Your task to perform on an android device: toggle data saver in the chrome app Image 0: 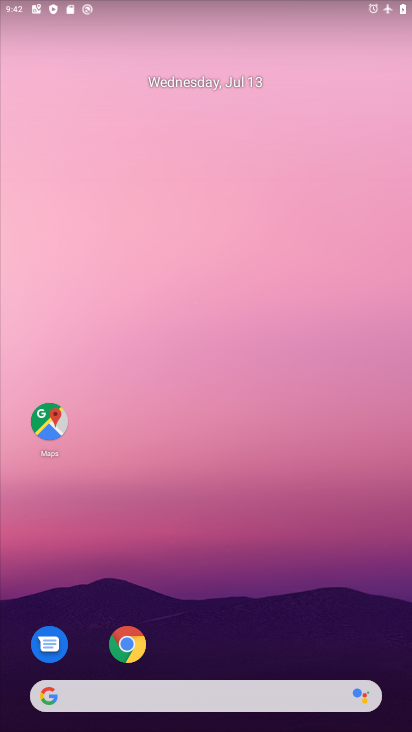
Step 0: drag from (227, 724) to (227, 121)
Your task to perform on an android device: toggle data saver in the chrome app Image 1: 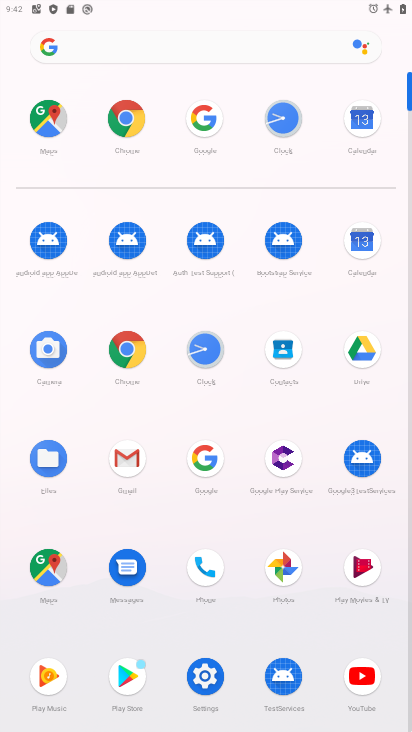
Step 1: click (128, 352)
Your task to perform on an android device: toggle data saver in the chrome app Image 2: 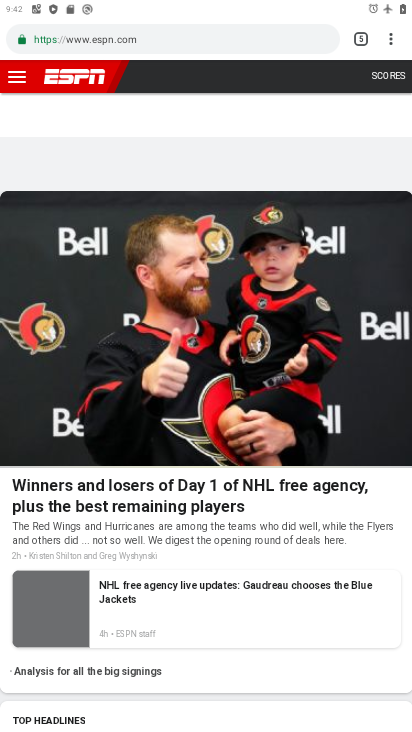
Step 2: click (390, 44)
Your task to perform on an android device: toggle data saver in the chrome app Image 3: 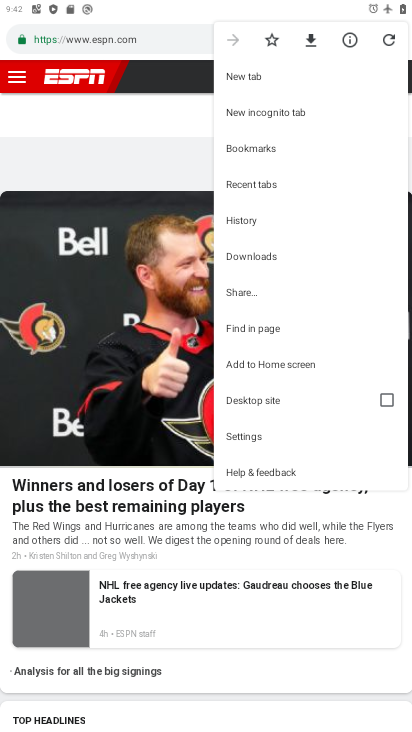
Step 3: click (250, 433)
Your task to perform on an android device: toggle data saver in the chrome app Image 4: 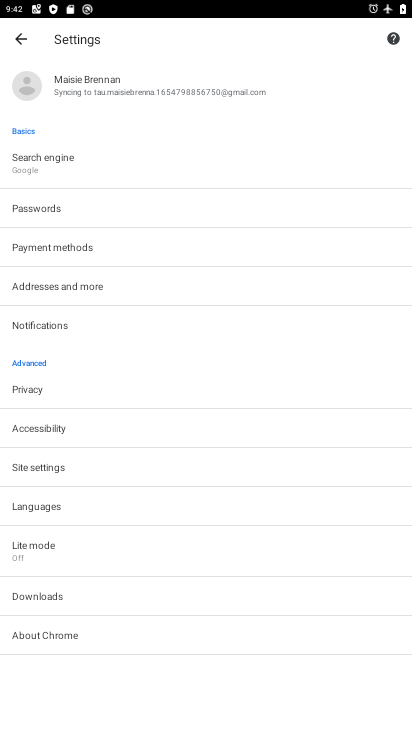
Step 4: click (39, 541)
Your task to perform on an android device: toggle data saver in the chrome app Image 5: 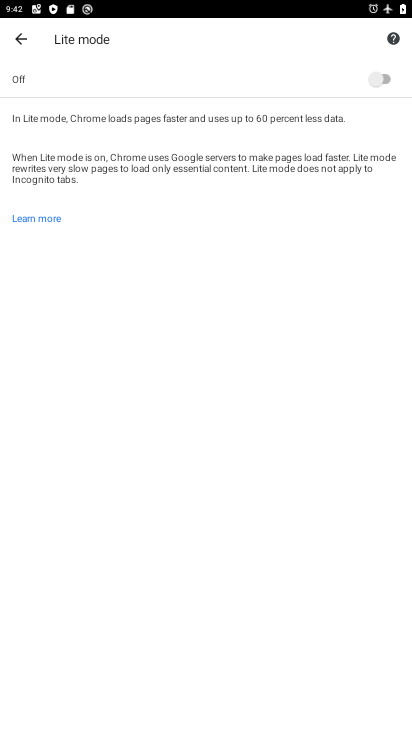
Step 5: click (387, 79)
Your task to perform on an android device: toggle data saver in the chrome app Image 6: 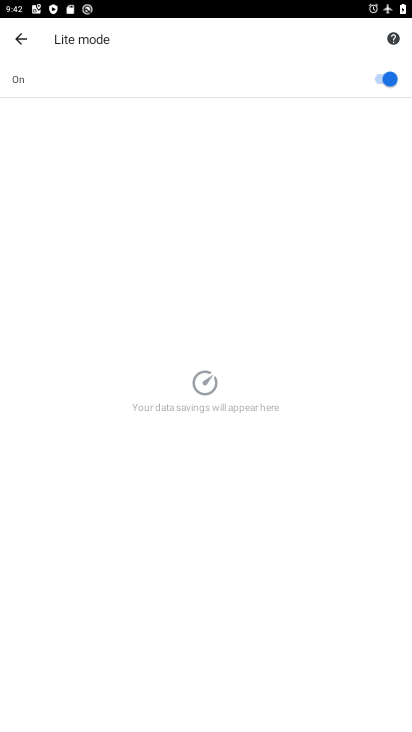
Step 6: task complete